Your task to perform on an android device: add a label to a message in the gmail app Image 0: 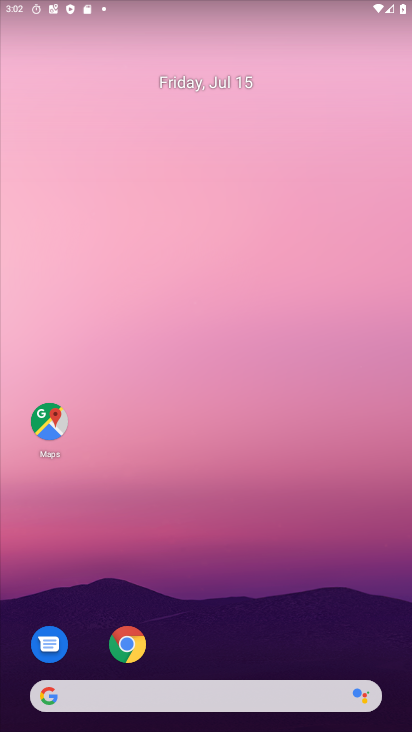
Step 0: drag from (233, 565) to (397, 19)
Your task to perform on an android device: add a label to a message in the gmail app Image 1: 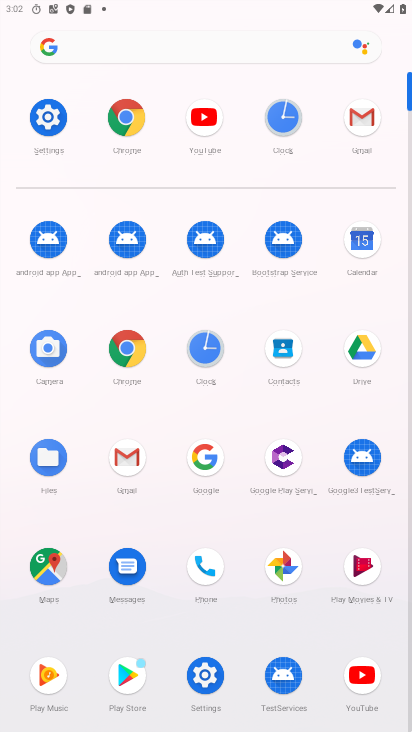
Step 1: click (358, 217)
Your task to perform on an android device: add a label to a message in the gmail app Image 2: 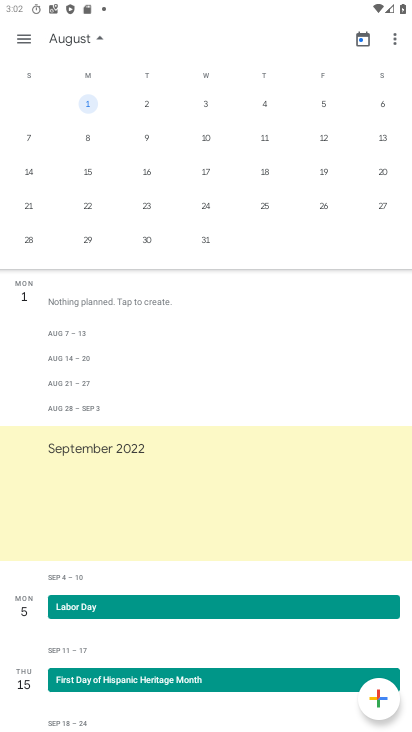
Step 2: press back button
Your task to perform on an android device: add a label to a message in the gmail app Image 3: 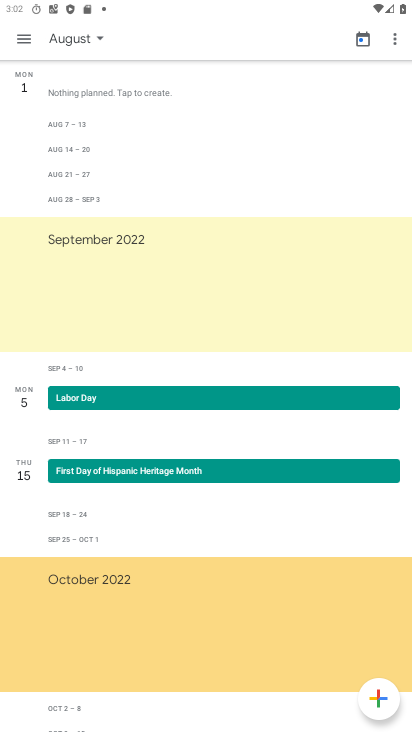
Step 3: press back button
Your task to perform on an android device: add a label to a message in the gmail app Image 4: 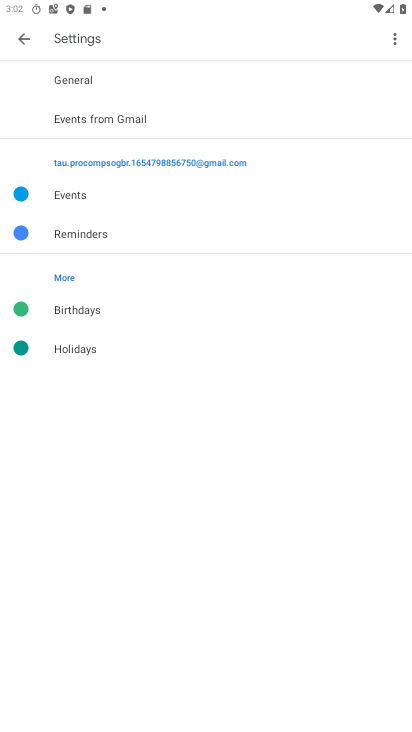
Step 4: press back button
Your task to perform on an android device: add a label to a message in the gmail app Image 5: 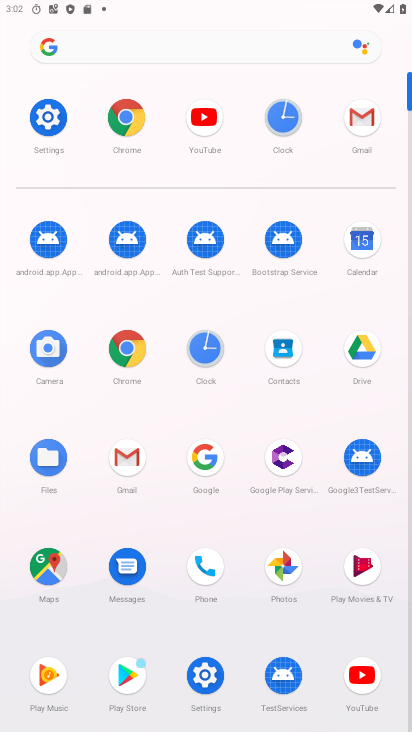
Step 5: click (113, 457)
Your task to perform on an android device: add a label to a message in the gmail app Image 6: 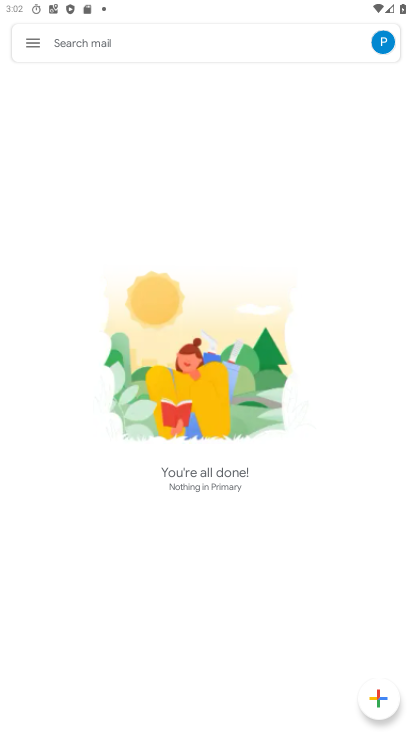
Step 6: click (24, 30)
Your task to perform on an android device: add a label to a message in the gmail app Image 7: 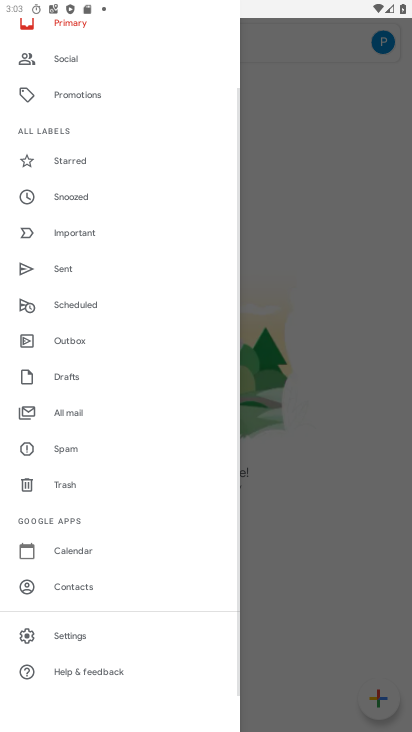
Step 7: click (73, 410)
Your task to perform on an android device: add a label to a message in the gmail app Image 8: 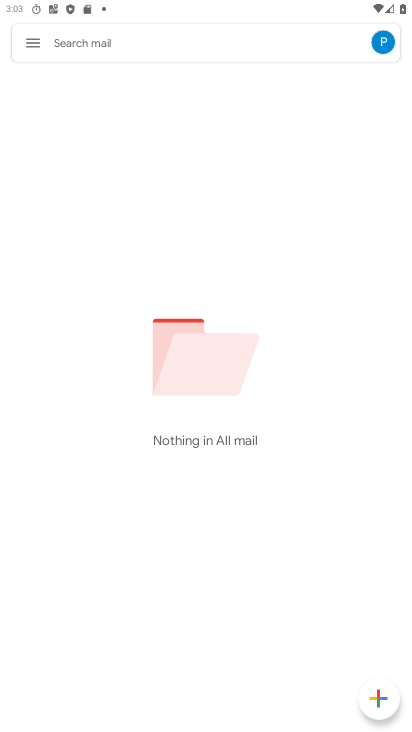
Step 8: task complete